Your task to perform on an android device: toggle sleep mode Image 0: 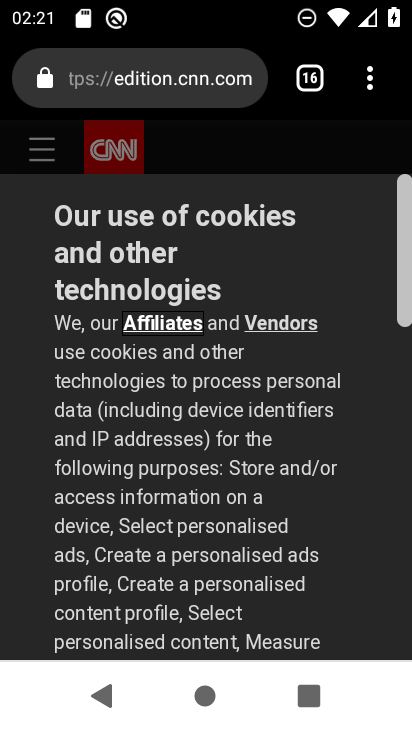
Step 0: press home button
Your task to perform on an android device: toggle sleep mode Image 1: 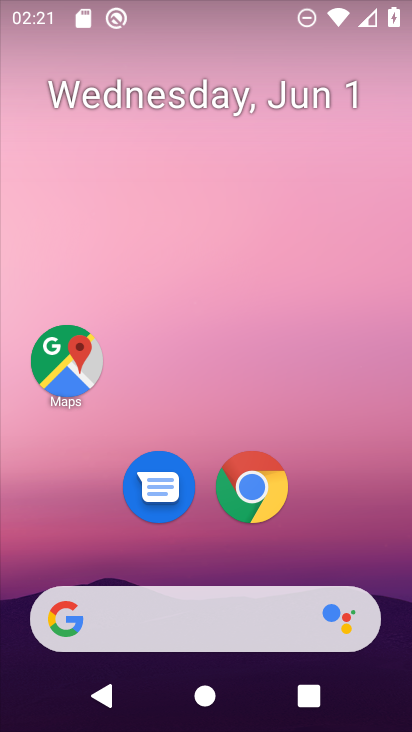
Step 1: drag from (305, 496) to (316, 212)
Your task to perform on an android device: toggle sleep mode Image 2: 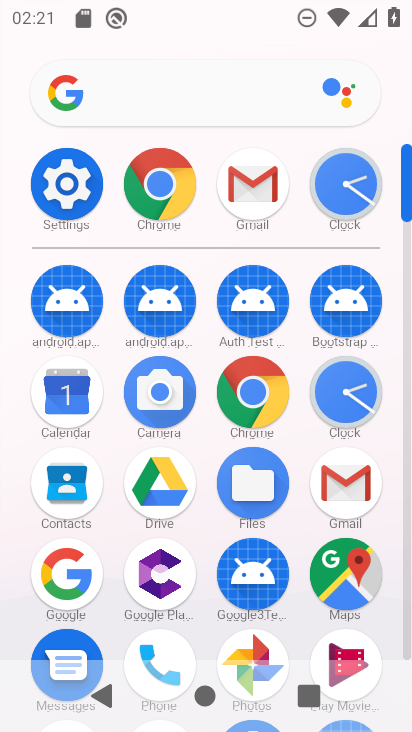
Step 2: click (71, 179)
Your task to perform on an android device: toggle sleep mode Image 3: 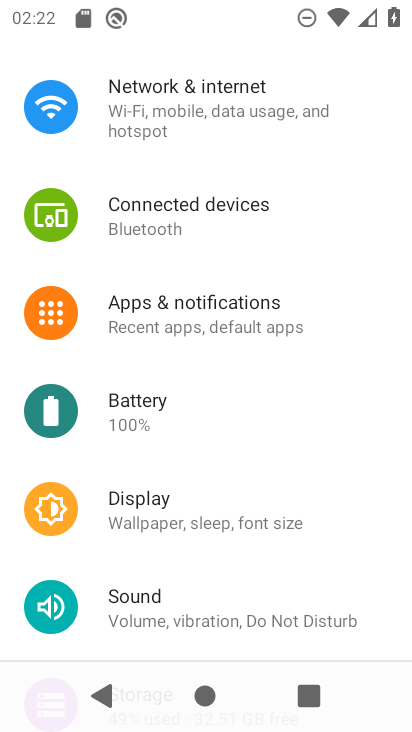
Step 3: task complete